Your task to perform on an android device: open app "Calculator" (install if not already installed) Image 0: 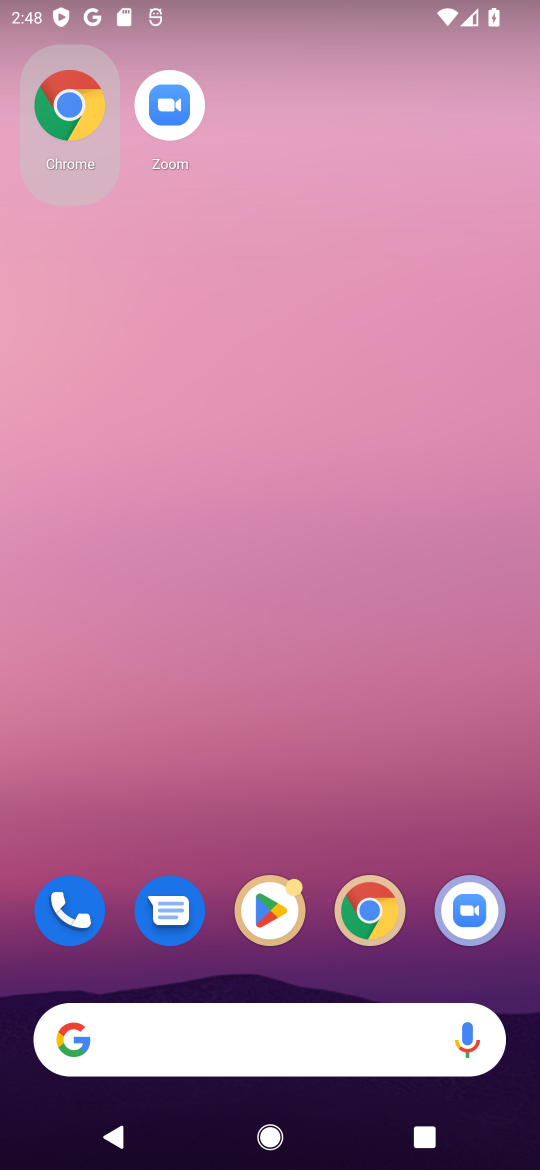
Step 0: drag from (414, 483) to (510, 154)
Your task to perform on an android device: open app "Calculator" (install if not already installed) Image 1: 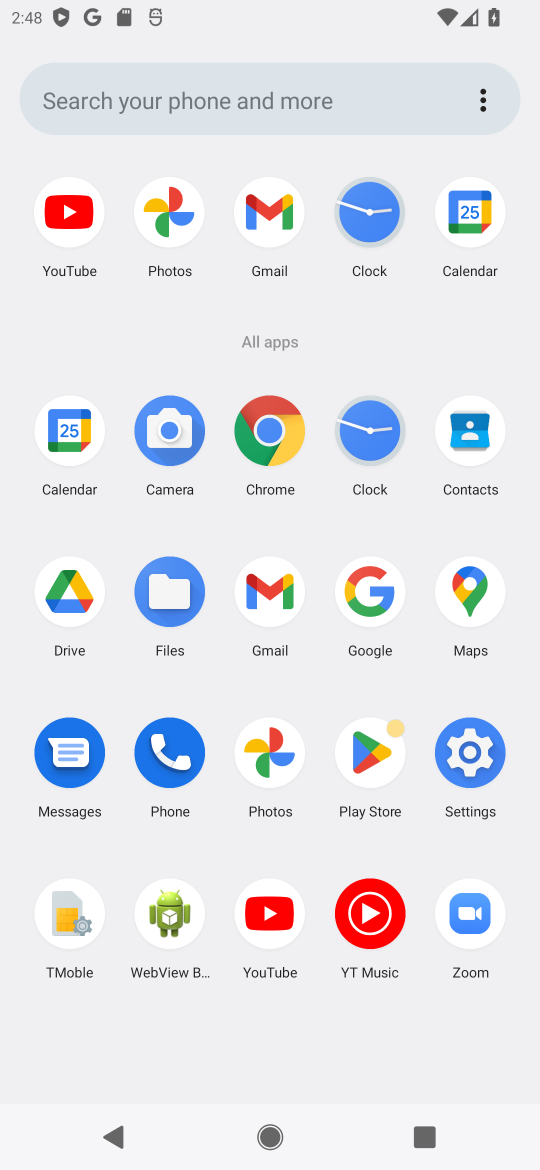
Step 1: click (383, 764)
Your task to perform on an android device: open app "Calculator" (install if not already installed) Image 2: 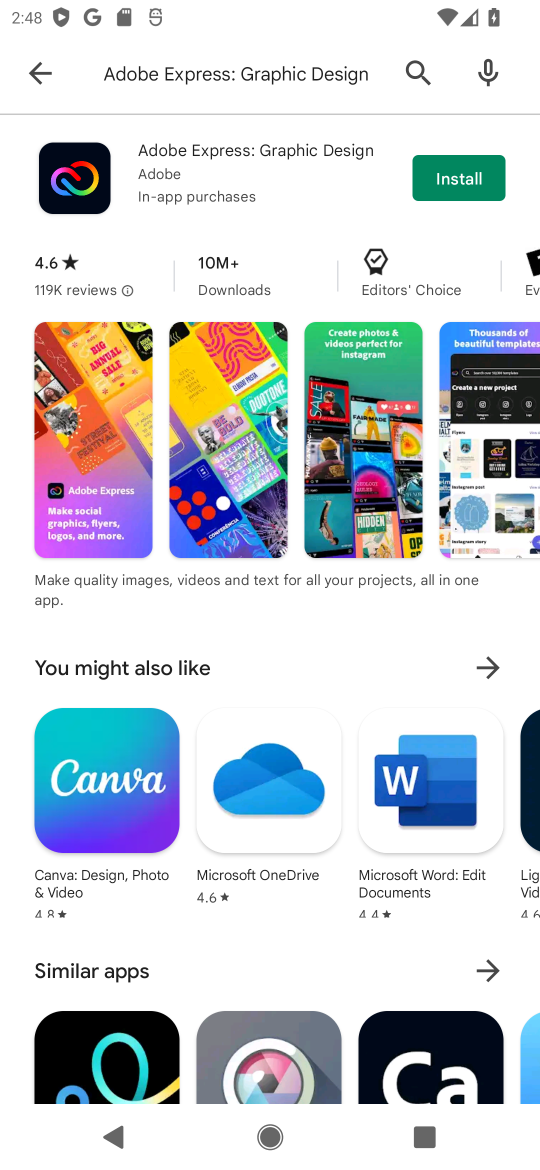
Step 2: press back button
Your task to perform on an android device: open app "Calculator" (install if not already installed) Image 3: 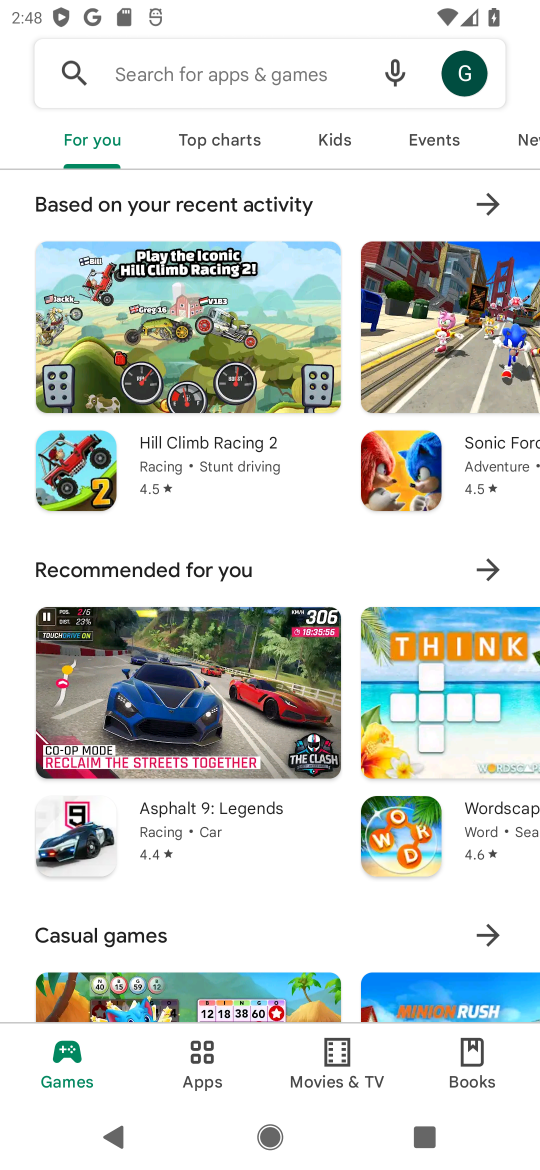
Step 3: click (274, 64)
Your task to perform on an android device: open app "Calculator" (install if not already installed) Image 4: 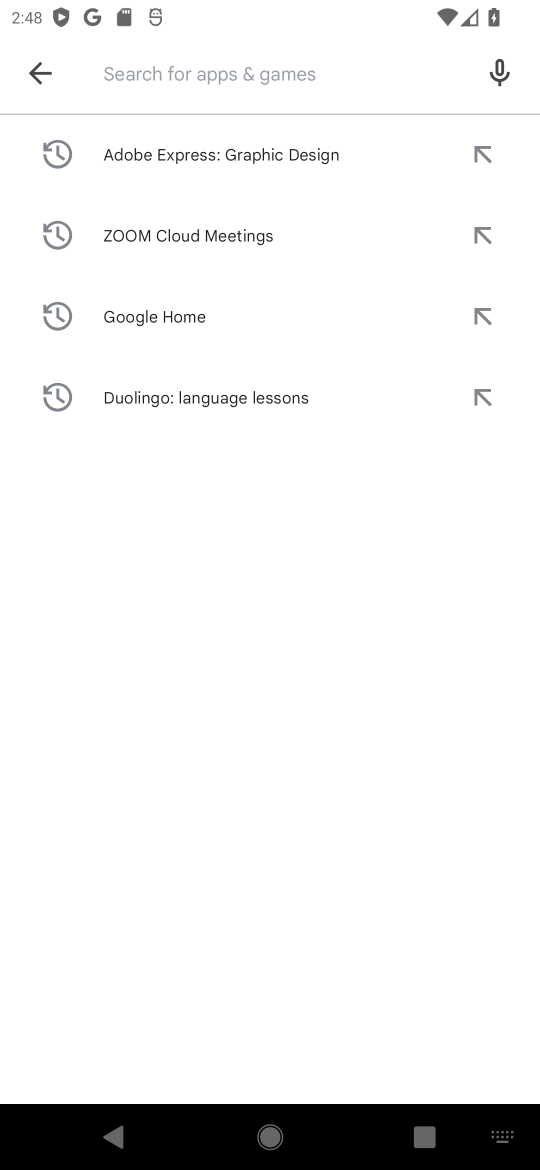
Step 4: type "Calculator"
Your task to perform on an android device: open app "Calculator" (install if not already installed) Image 5: 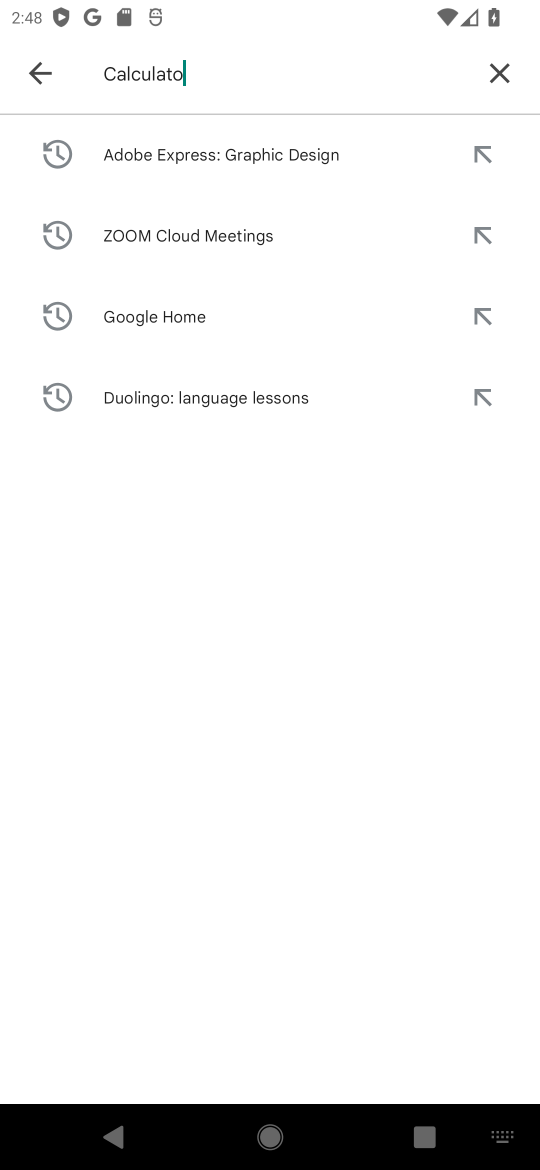
Step 5: press enter
Your task to perform on an android device: open app "Calculator" (install if not already installed) Image 6: 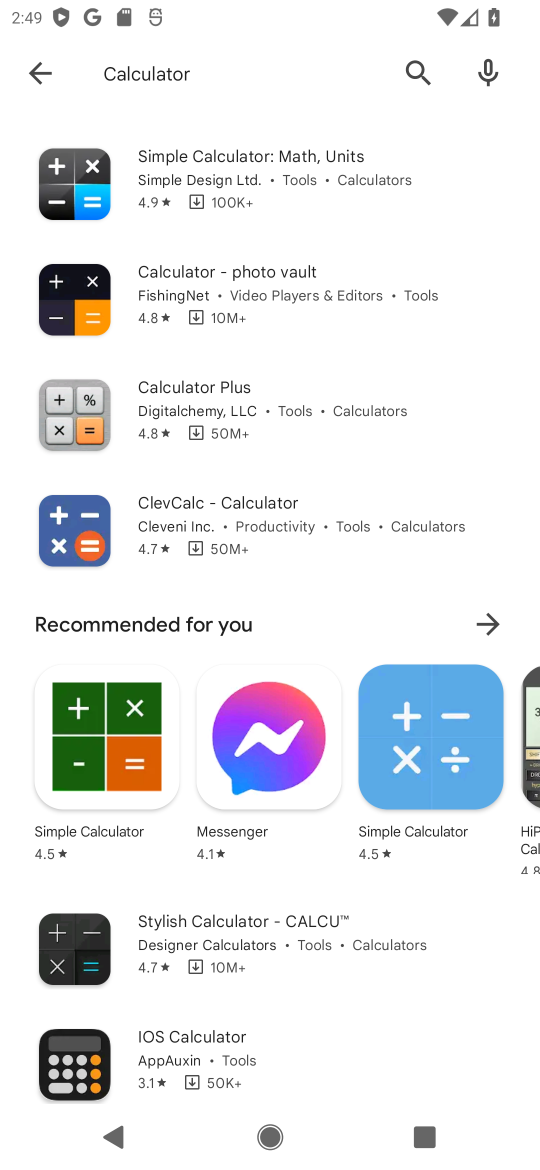
Step 6: click (345, 204)
Your task to perform on an android device: open app "Calculator" (install if not already installed) Image 7: 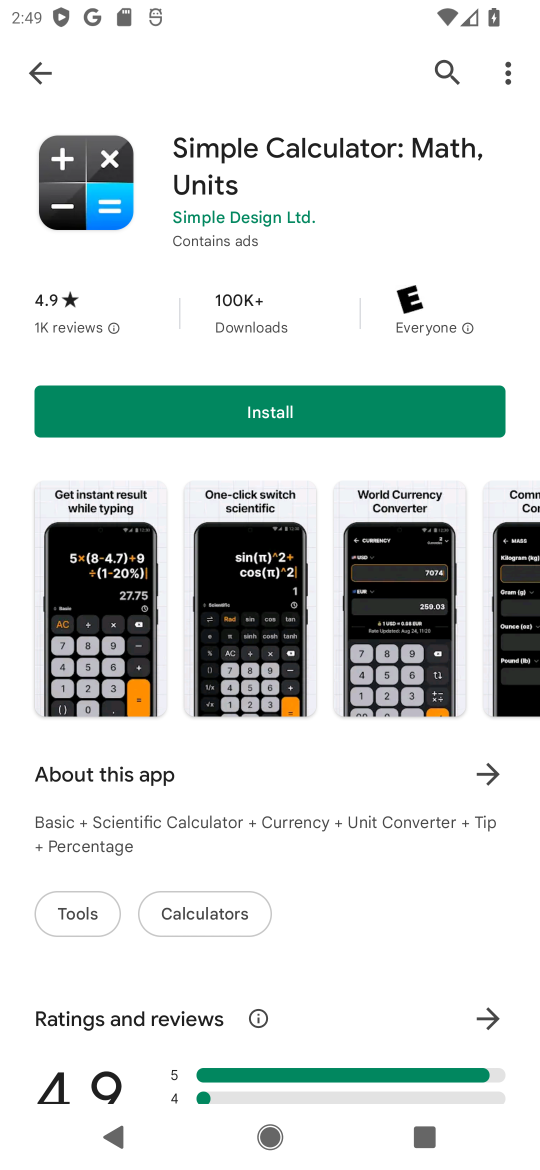
Step 7: click (290, 418)
Your task to perform on an android device: open app "Calculator" (install if not already installed) Image 8: 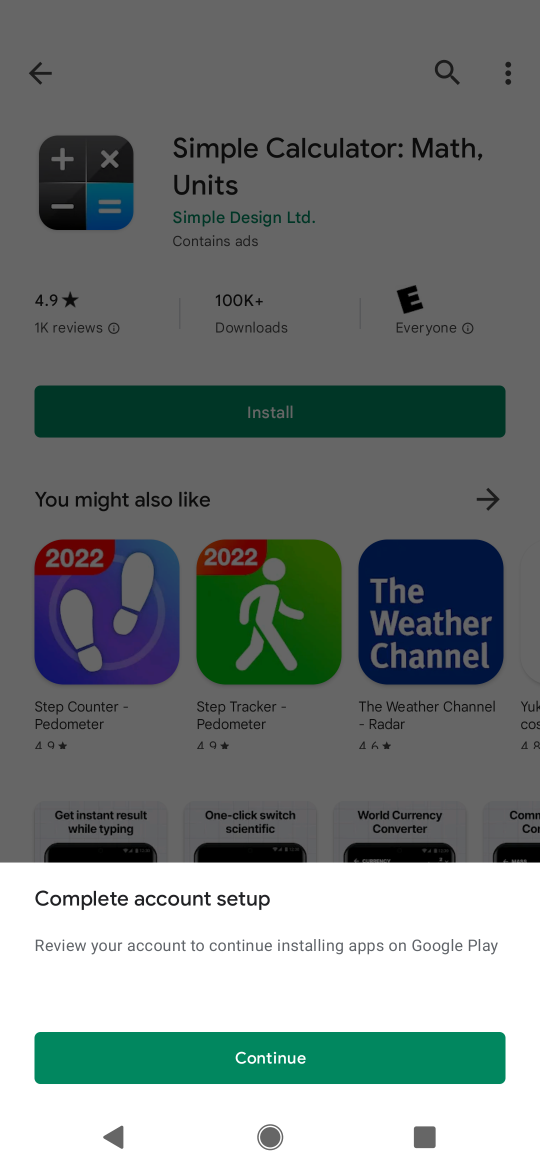
Step 8: click (238, 1057)
Your task to perform on an android device: open app "Calculator" (install if not already installed) Image 9: 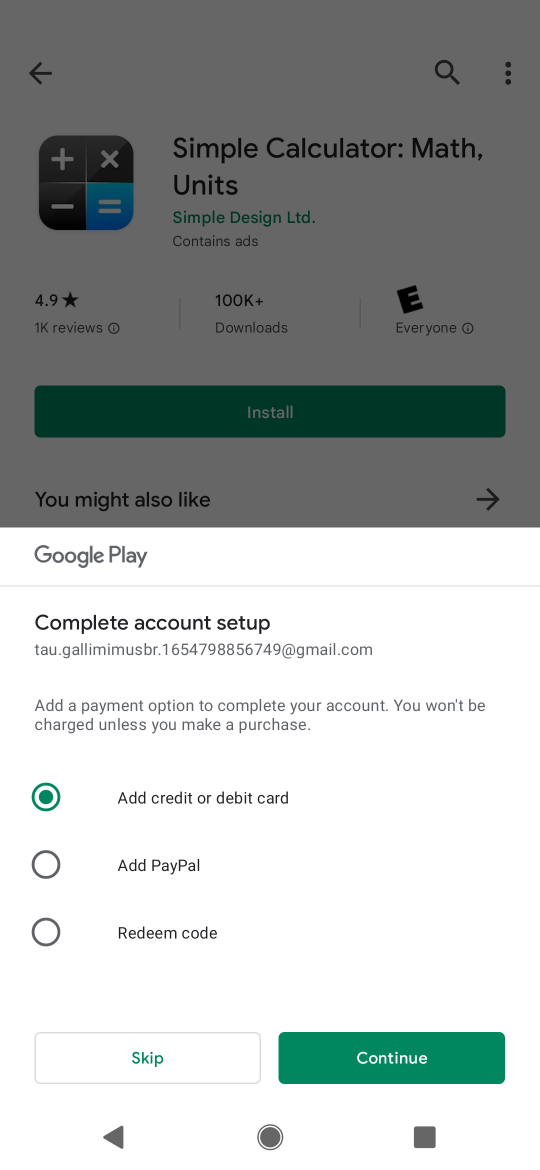
Step 9: click (179, 1066)
Your task to perform on an android device: open app "Calculator" (install if not already installed) Image 10: 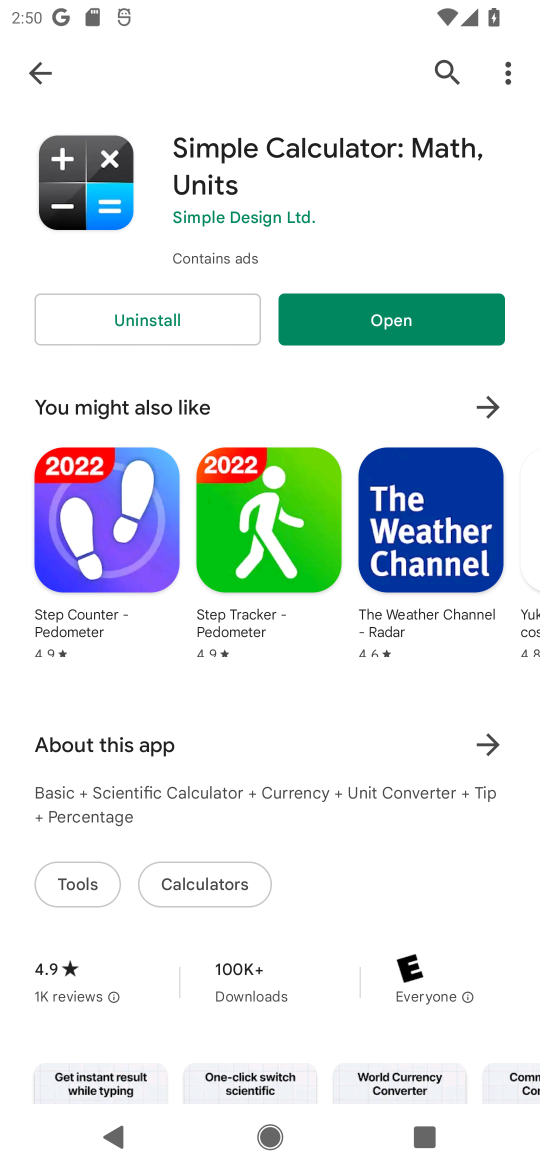
Step 10: click (426, 318)
Your task to perform on an android device: open app "Calculator" (install if not already installed) Image 11: 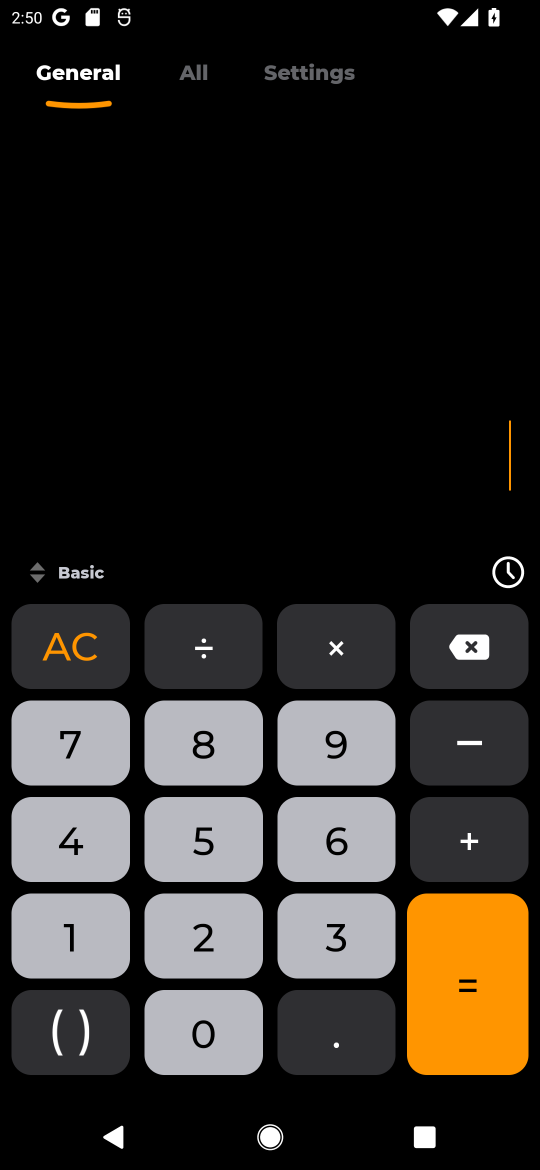
Step 11: task complete